Your task to perform on an android device: Add bose quietcomfort 35 to the cart on walmart.com Image 0: 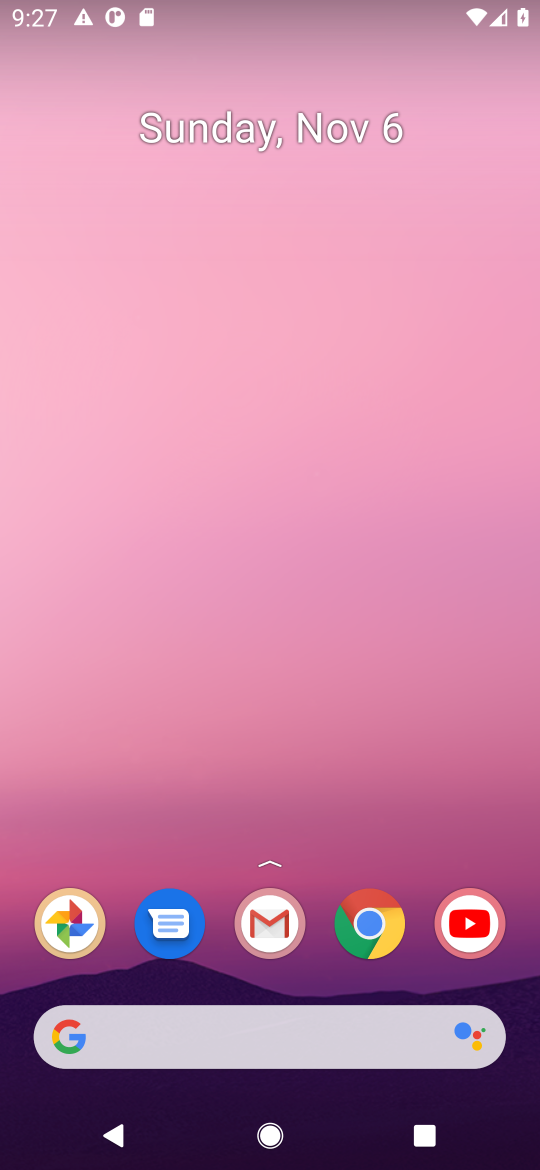
Step 0: click (378, 932)
Your task to perform on an android device: Add bose quietcomfort 35 to the cart on walmart.com Image 1: 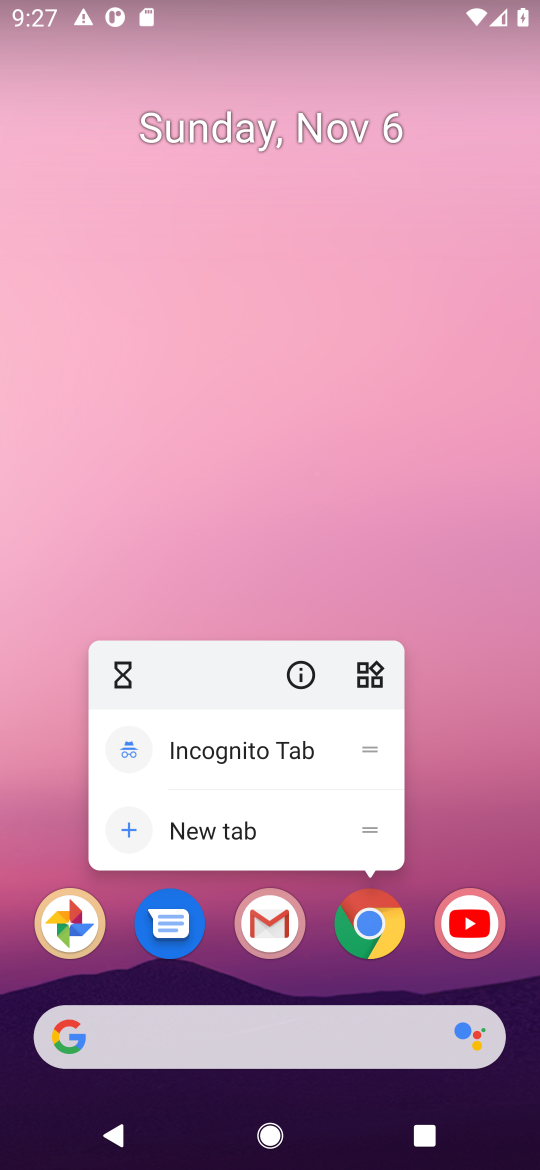
Step 1: click (378, 932)
Your task to perform on an android device: Add bose quietcomfort 35 to the cart on walmart.com Image 2: 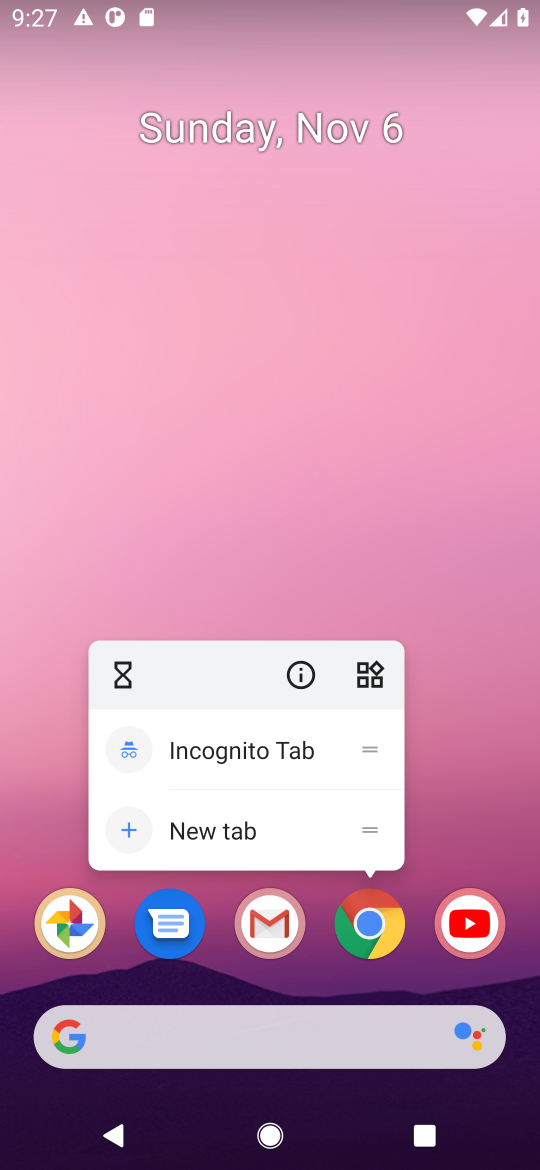
Step 2: click (378, 932)
Your task to perform on an android device: Add bose quietcomfort 35 to the cart on walmart.com Image 3: 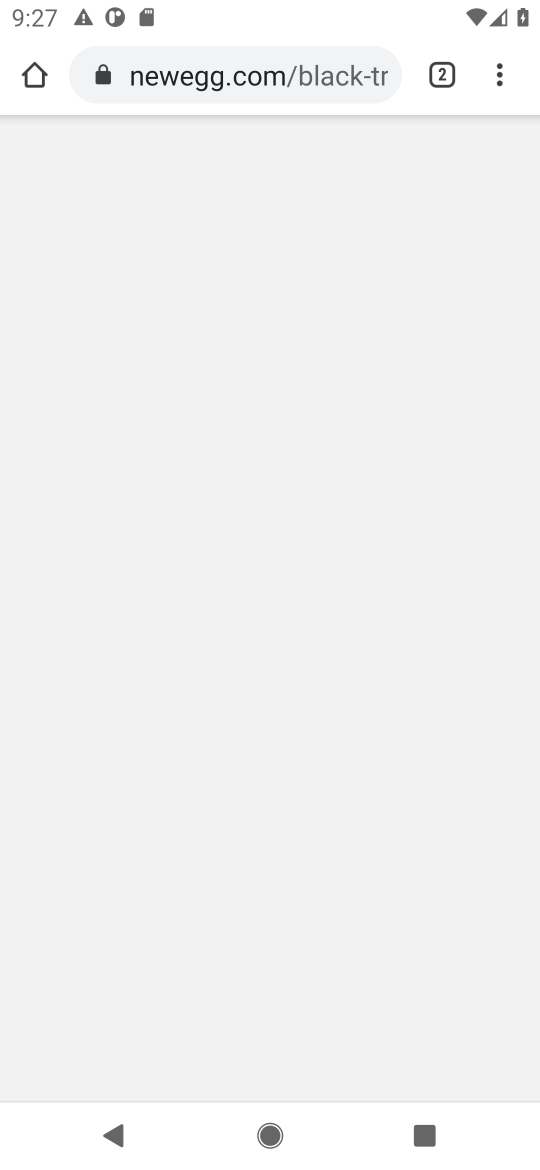
Step 3: click (259, 79)
Your task to perform on an android device: Add bose quietcomfort 35 to the cart on walmart.com Image 4: 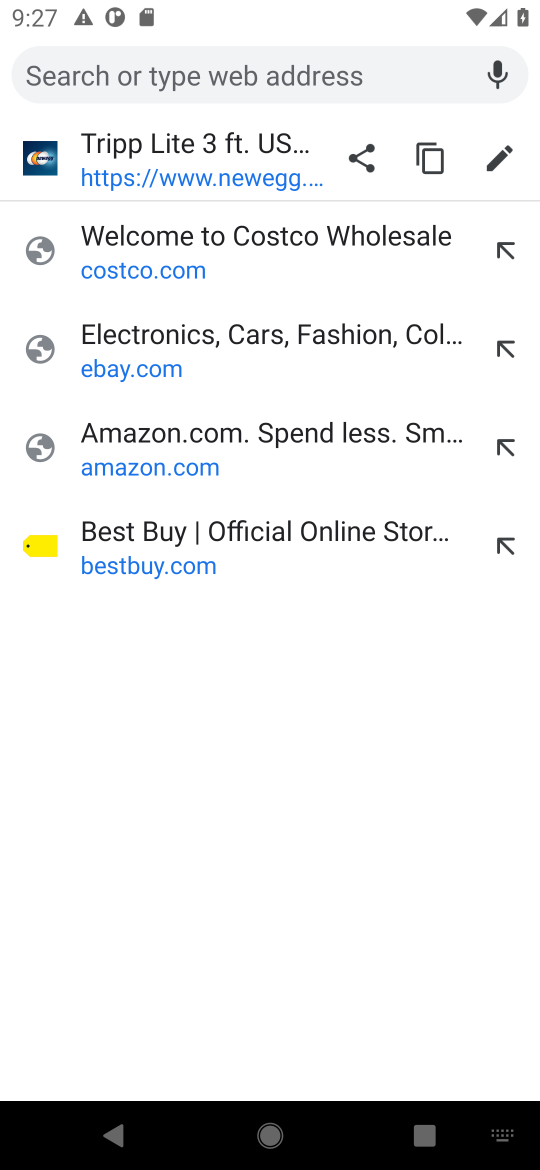
Step 4: type "walmart.com"
Your task to perform on an android device: Add bose quietcomfort 35 to the cart on walmart.com Image 5: 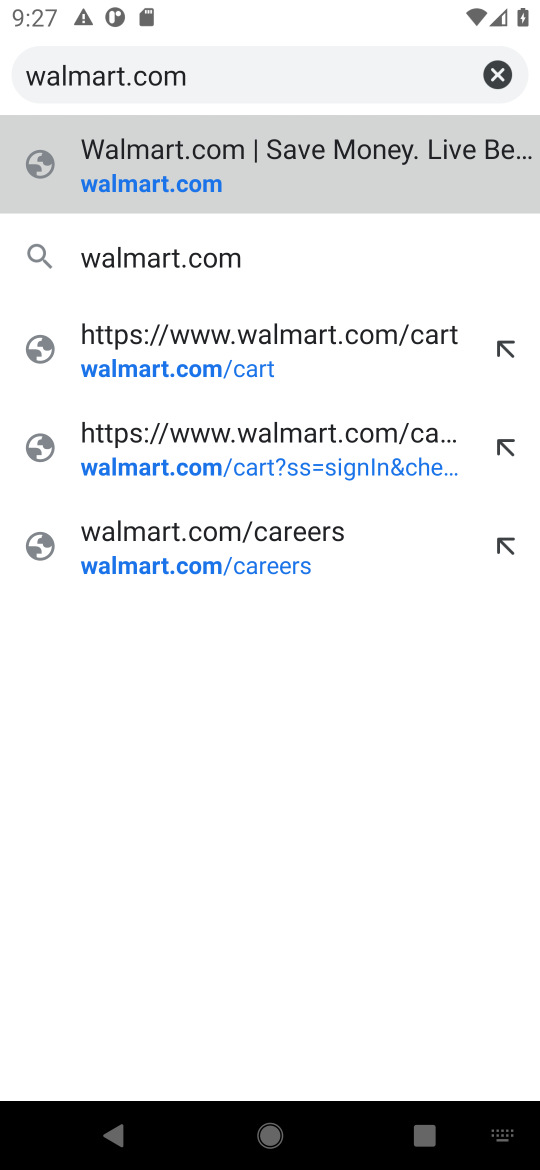
Step 5: click (152, 175)
Your task to perform on an android device: Add bose quietcomfort 35 to the cart on walmart.com Image 6: 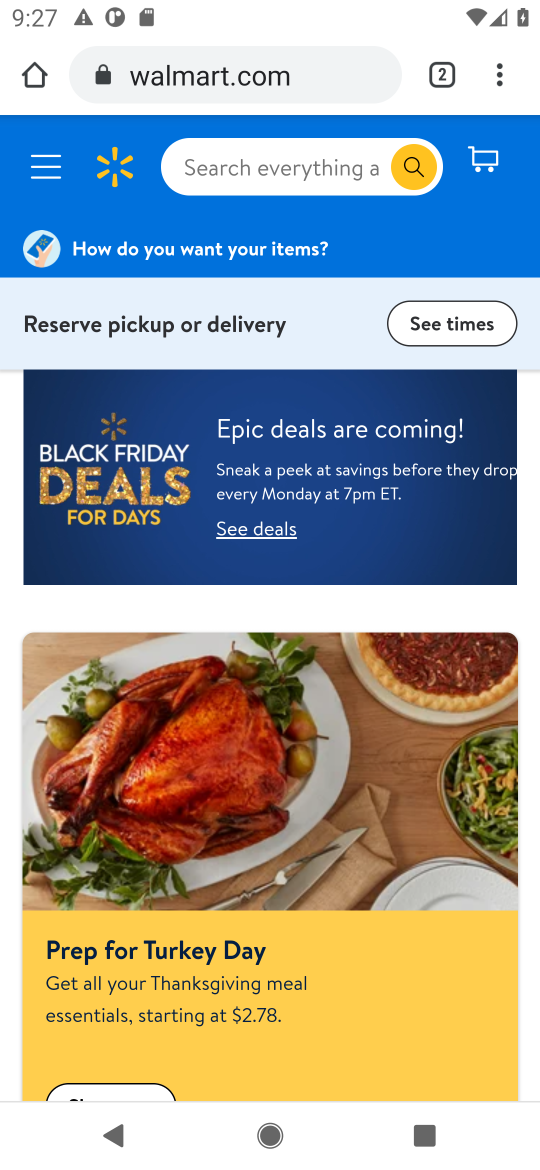
Step 6: click (245, 161)
Your task to perform on an android device: Add bose quietcomfort 35 to the cart on walmart.com Image 7: 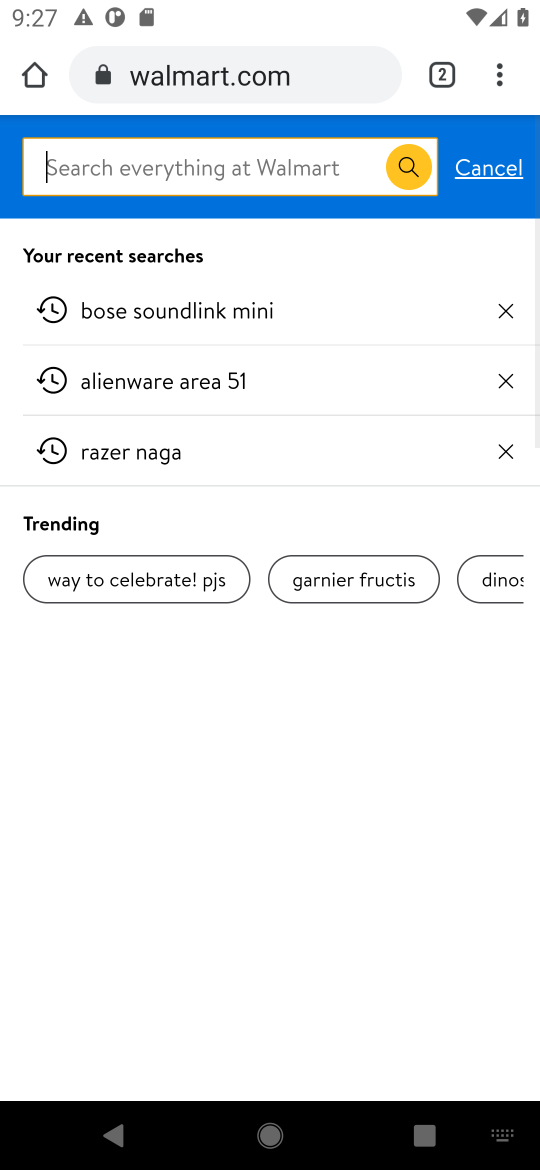
Step 7: type " bose quietcomfort 35"
Your task to perform on an android device: Add bose quietcomfort 35 to the cart on walmart.com Image 8: 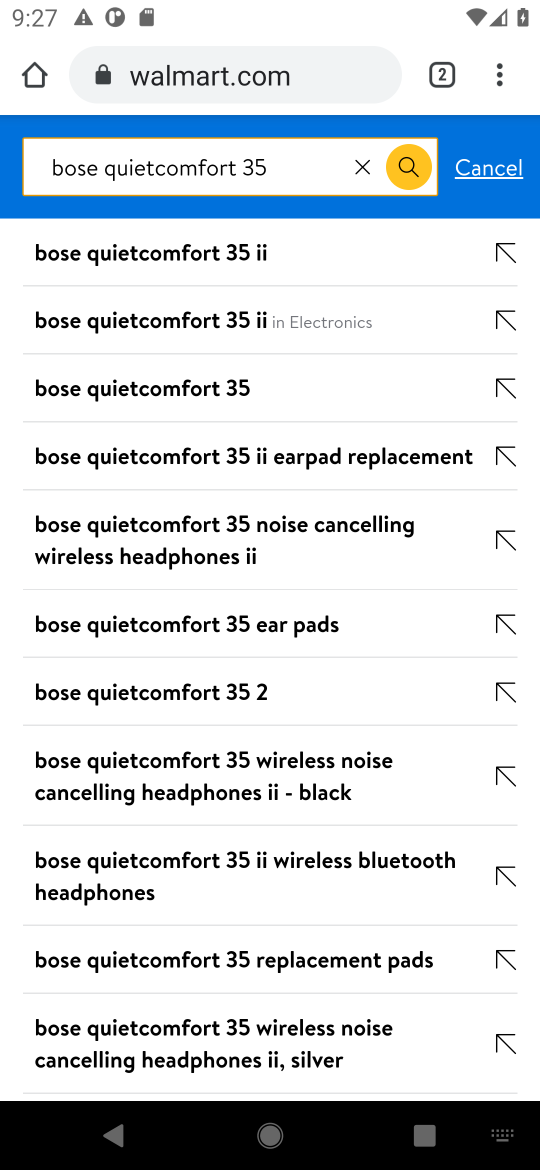
Step 8: click (205, 393)
Your task to perform on an android device: Add bose quietcomfort 35 to the cart on walmart.com Image 9: 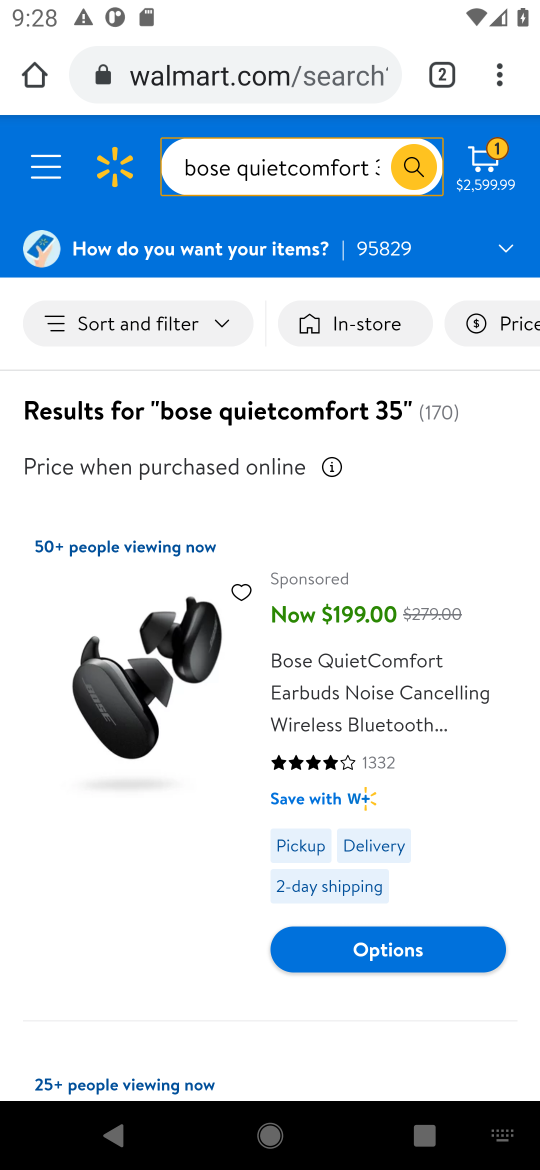
Step 9: drag from (143, 860) to (184, 357)
Your task to perform on an android device: Add bose quietcomfort 35 to the cart on walmart.com Image 10: 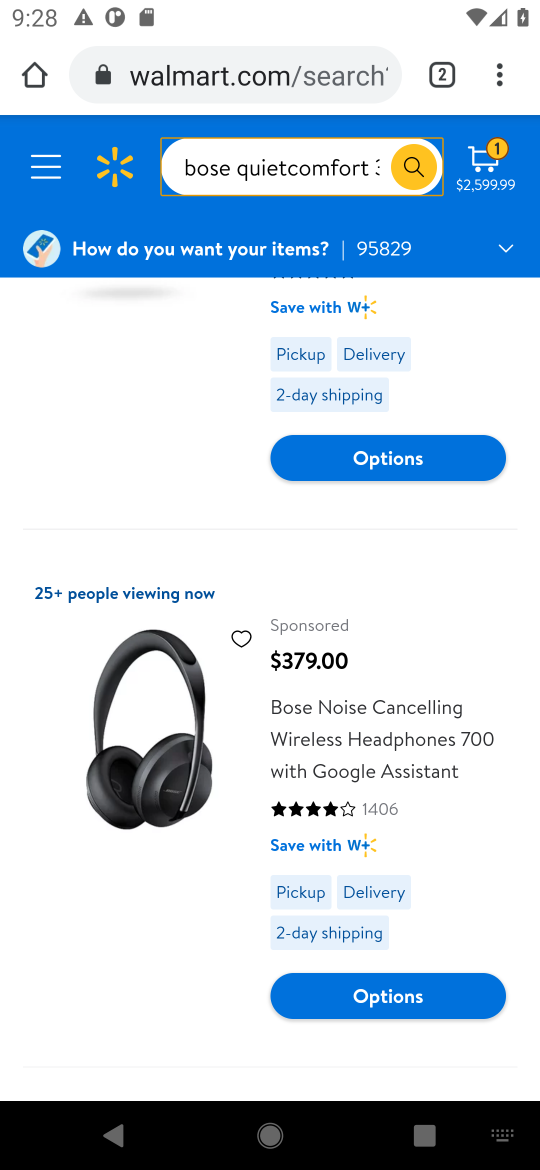
Step 10: drag from (191, 834) to (204, 446)
Your task to perform on an android device: Add bose quietcomfort 35 to the cart on walmart.com Image 11: 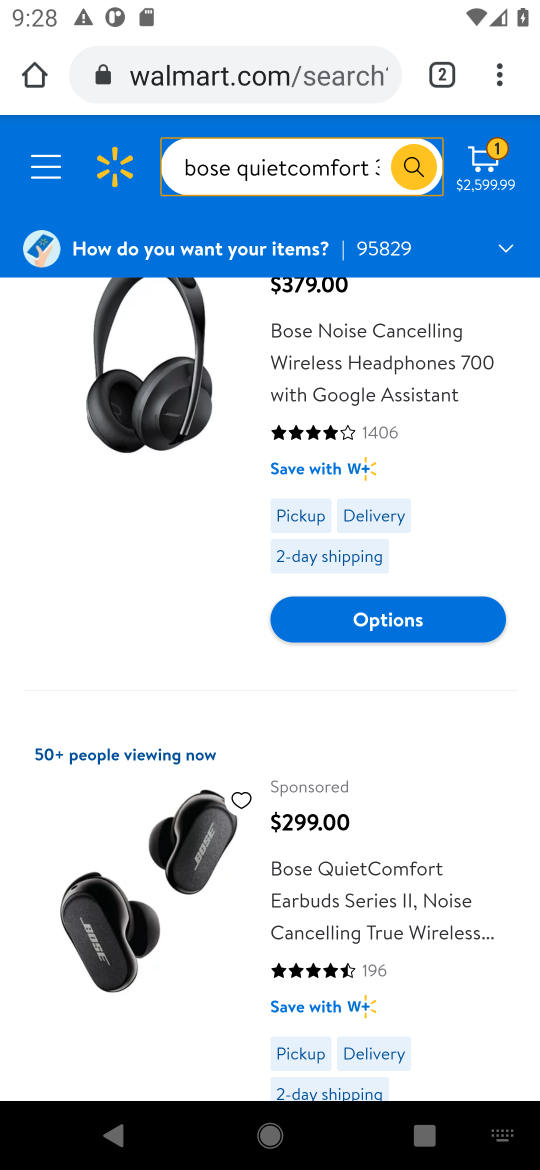
Step 11: drag from (190, 930) to (168, 431)
Your task to perform on an android device: Add bose quietcomfort 35 to the cart on walmart.com Image 12: 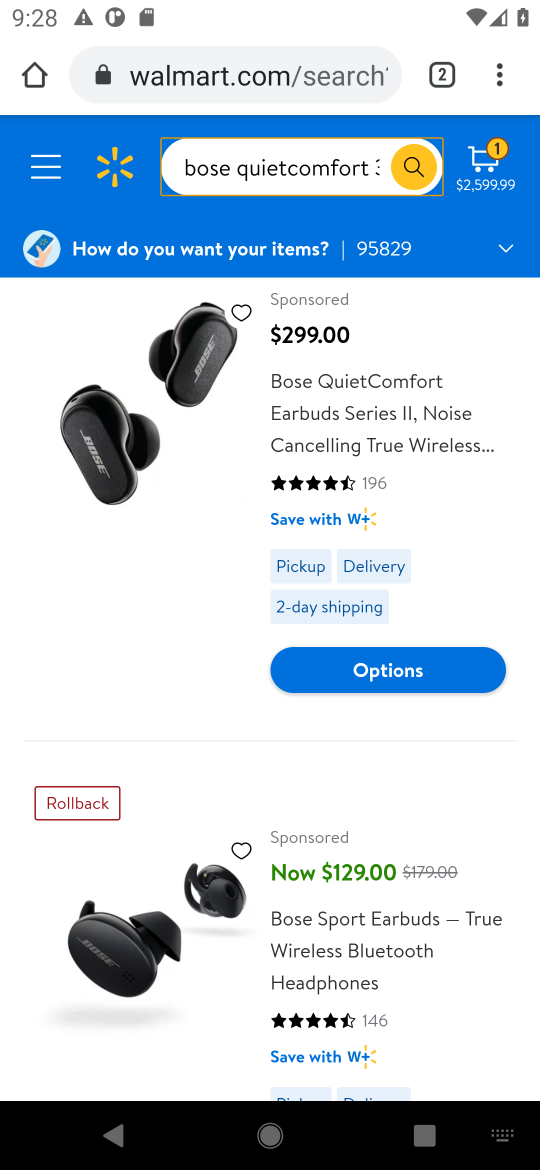
Step 12: drag from (104, 892) to (124, 373)
Your task to perform on an android device: Add bose quietcomfort 35 to the cart on walmart.com Image 13: 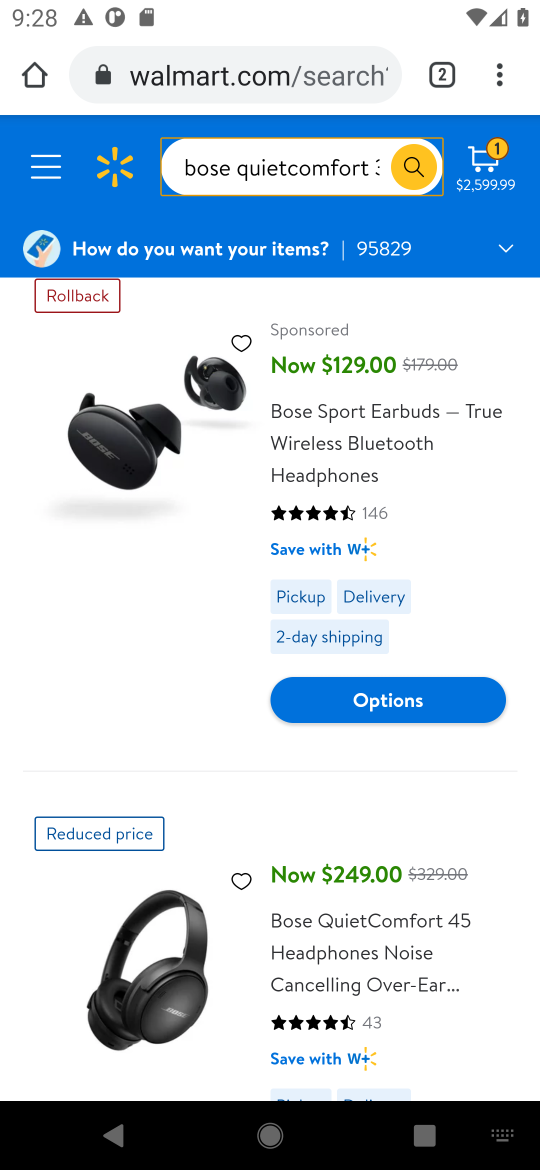
Step 13: drag from (133, 1000) to (119, 333)
Your task to perform on an android device: Add bose quietcomfort 35 to the cart on walmart.com Image 14: 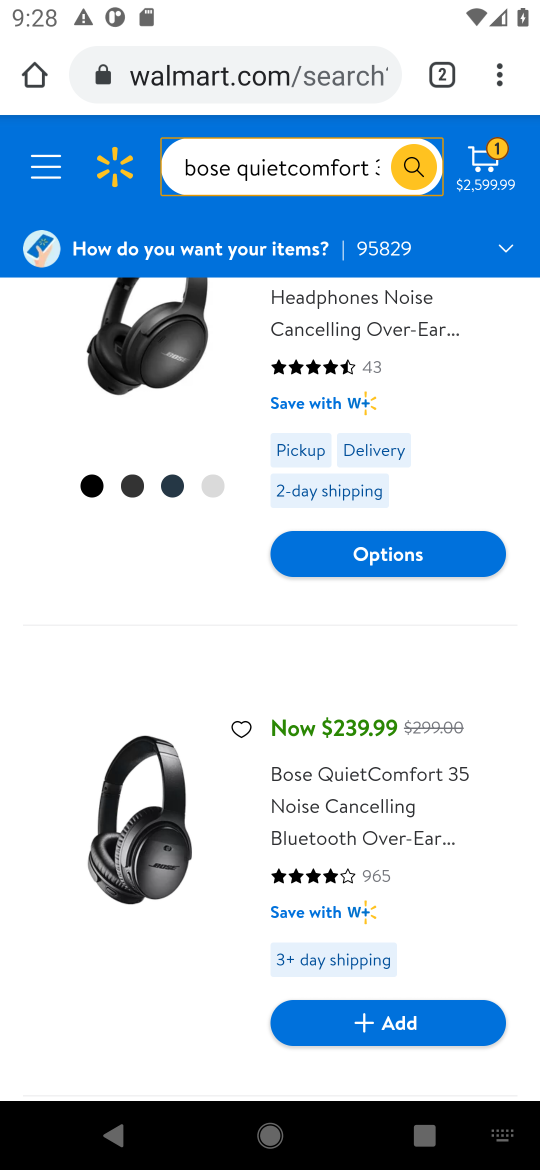
Step 14: click (388, 1027)
Your task to perform on an android device: Add bose quietcomfort 35 to the cart on walmart.com Image 15: 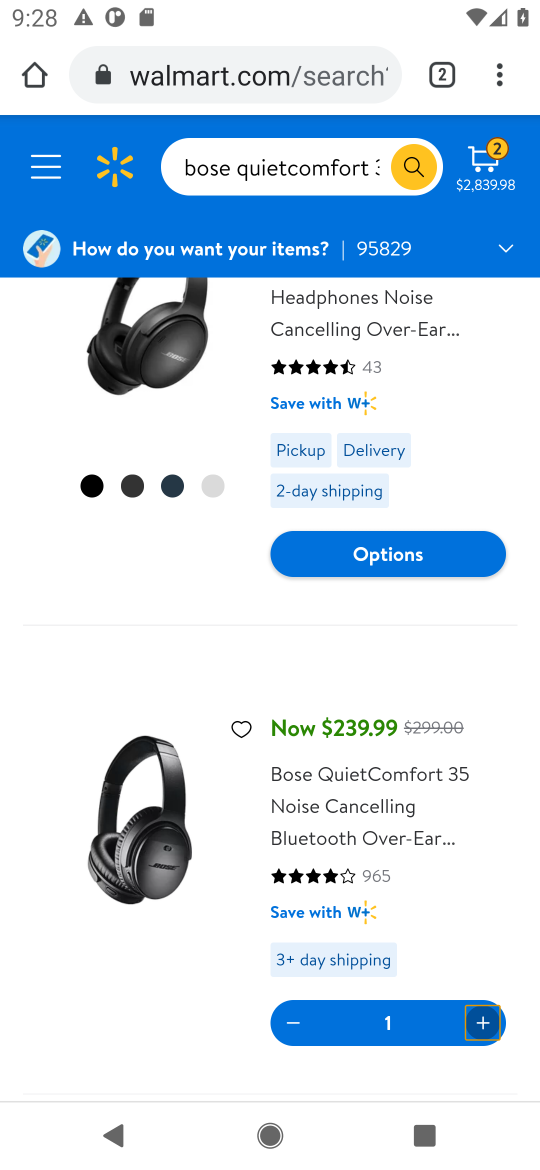
Step 15: click (487, 177)
Your task to perform on an android device: Add bose quietcomfort 35 to the cart on walmart.com Image 16: 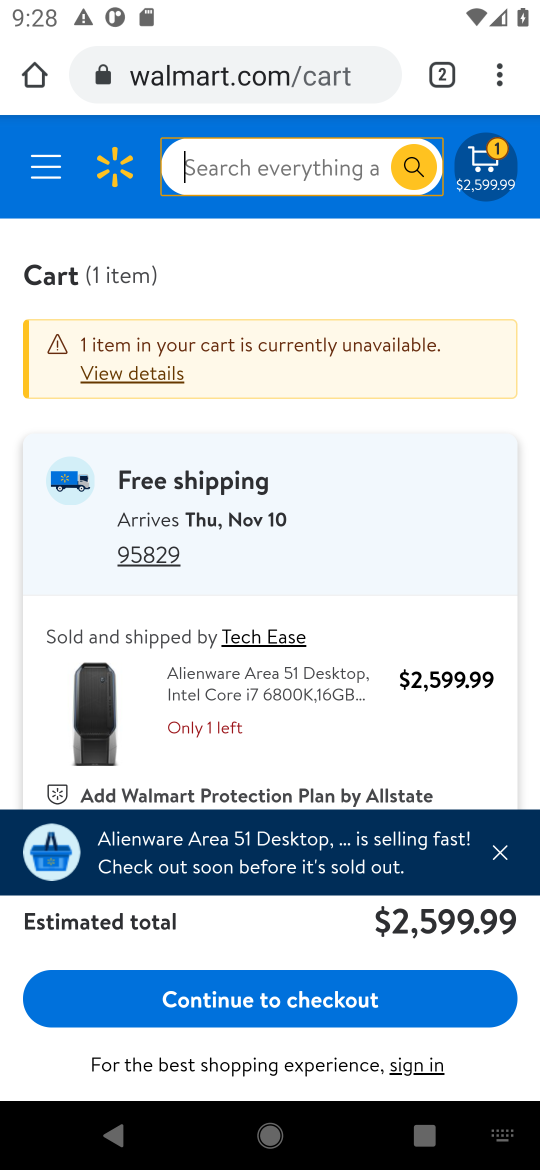
Step 16: task complete